Your task to perform on an android device: Open display settings Image 0: 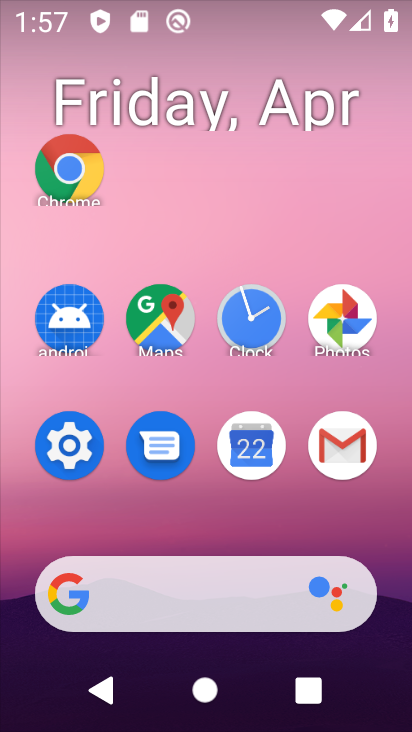
Step 0: click (75, 441)
Your task to perform on an android device: Open display settings Image 1: 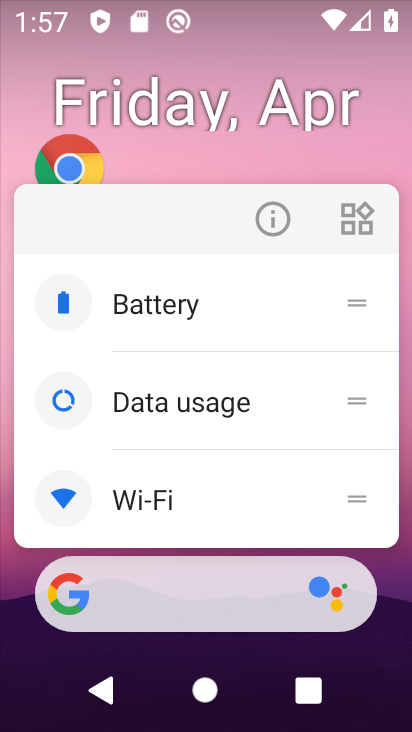
Step 1: click (395, 653)
Your task to perform on an android device: Open display settings Image 2: 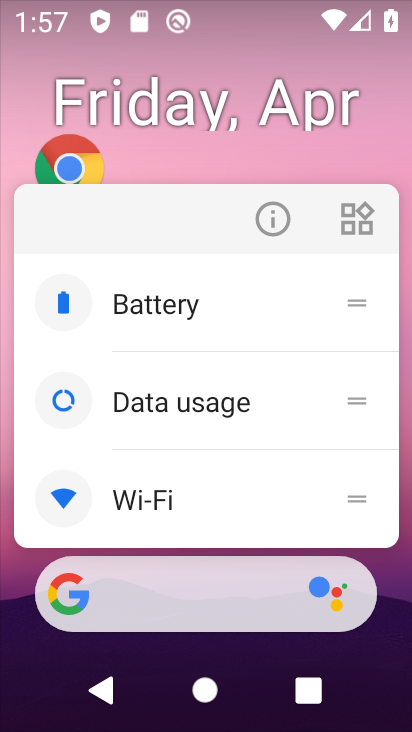
Step 2: click (179, 152)
Your task to perform on an android device: Open display settings Image 3: 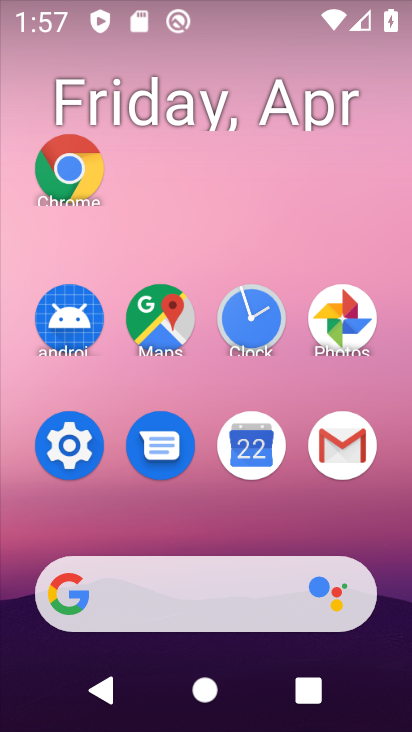
Step 3: click (66, 461)
Your task to perform on an android device: Open display settings Image 4: 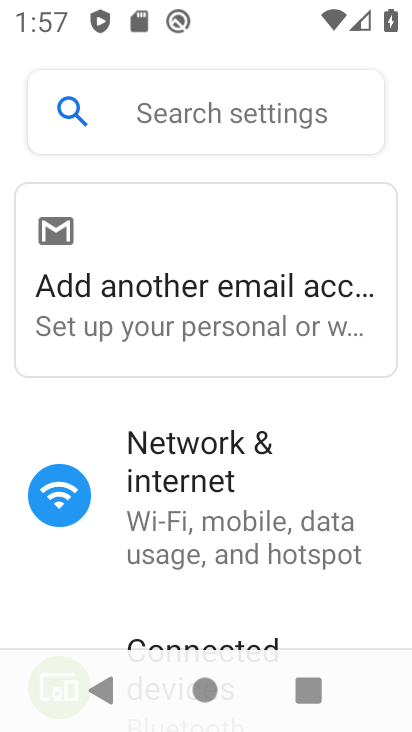
Step 4: drag from (237, 475) to (227, 148)
Your task to perform on an android device: Open display settings Image 5: 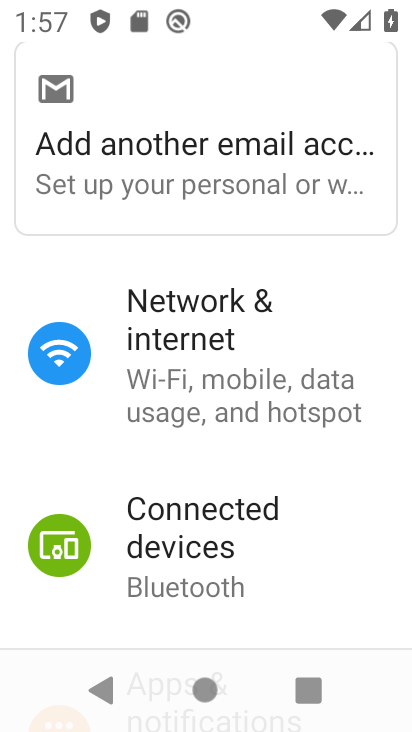
Step 5: drag from (190, 550) to (190, 235)
Your task to perform on an android device: Open display settings Image 6: 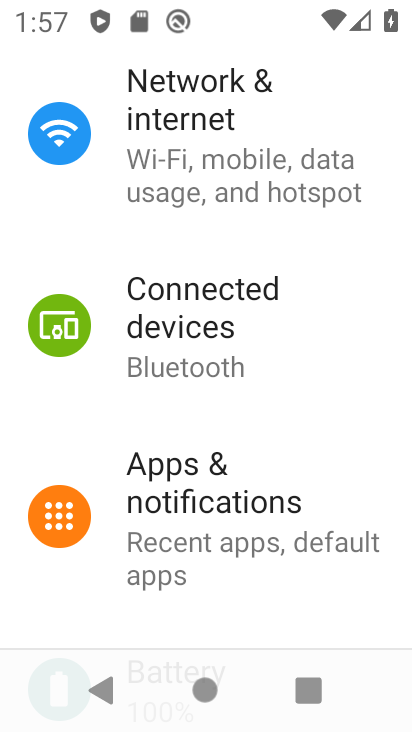
Step 6: drag from (215, 525) to (126, 127)
Your task to perform on an android device: Open display settings Image 7: 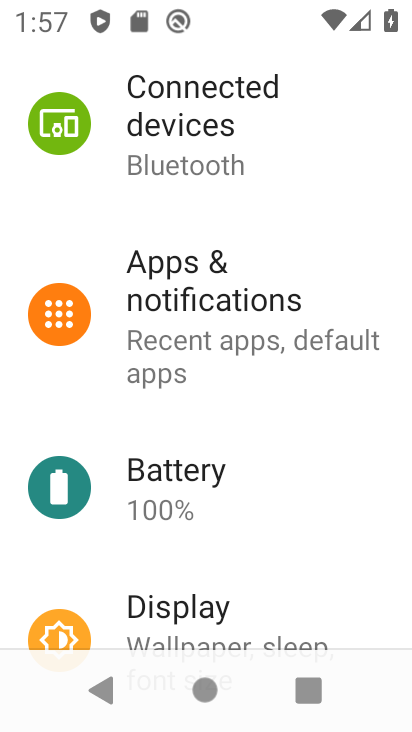
Step 7: drag from (183, 515) to (197, 284)
Your task to perform on an android device: Open display settings Image 8: 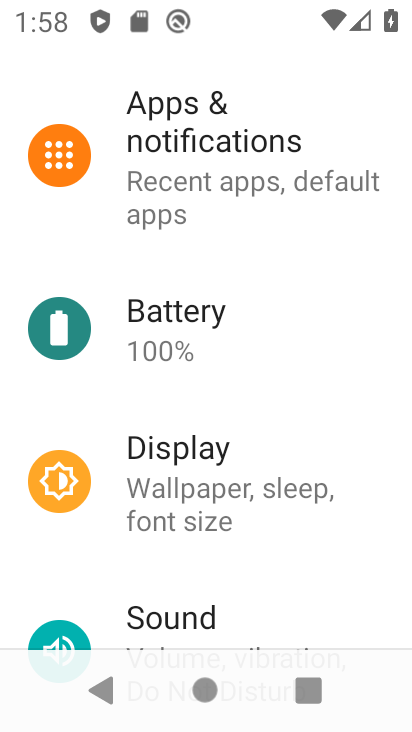
Step 8: click (179, 446)
Your task to perform on an android device: Open display settings Image 9: 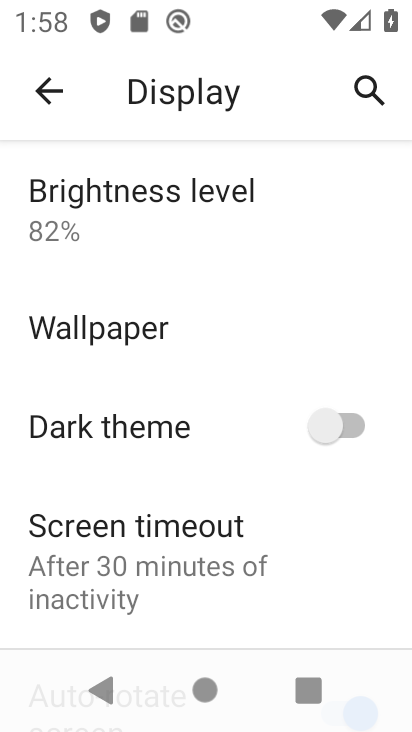
Step 9: task complete